Your task to perform on an android device: toggle wifi Image 0: 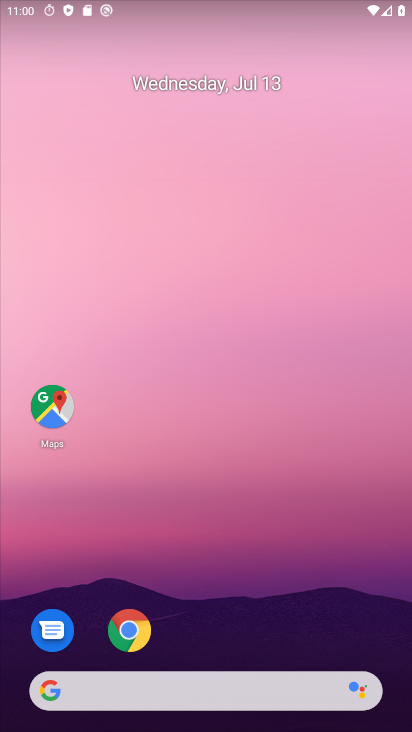
Step 0: drag from (188, 636) to (264, 146)
Your task to perform on an android device: toggle wifi Image 1: 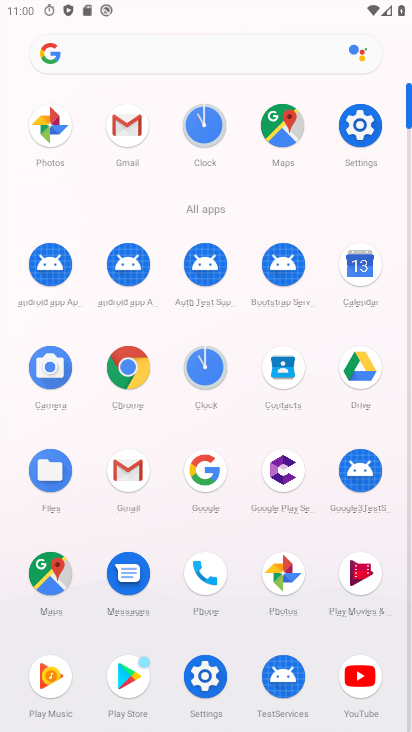
Step 1: click (206, 676)
Your task to perform on an android device: toggle wifi Image 2: 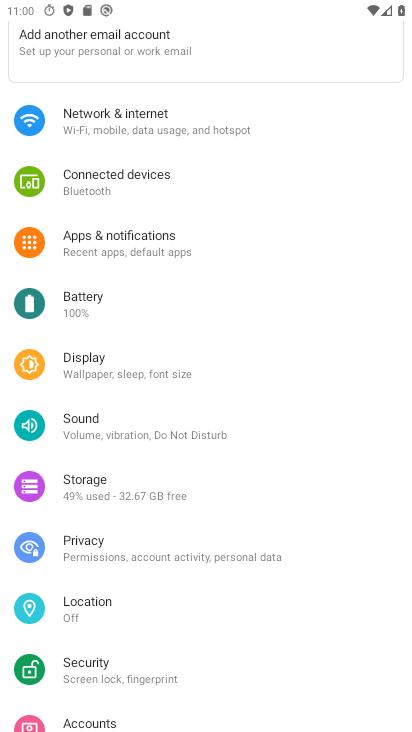
Step 2: click (195, 123)
Your task to perform on an android device: toggle wifi Image 3: 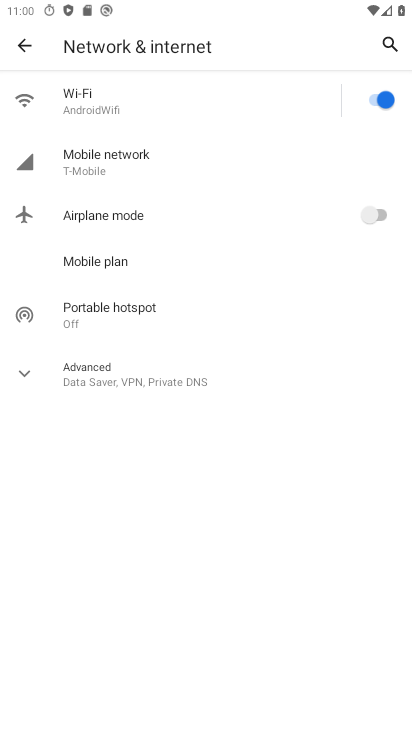
Step 3: click (374, 97)
Your task to perform on an android device: toggle wifi Image 4: 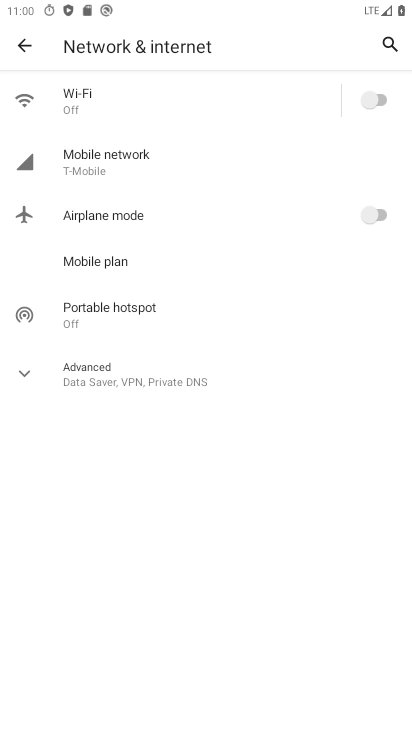
Step 4: task complete